Your task to perform on an android device: check android version Image 0: 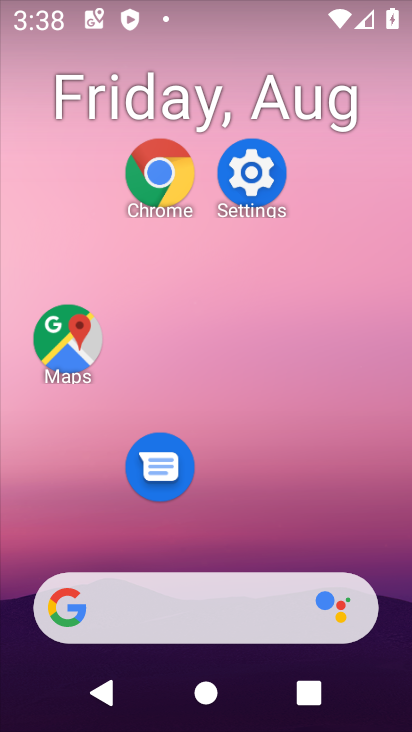
Step 0: drag from (298, 531) to (221, 42)
Your task to perform on an android device: check android version Image 1: 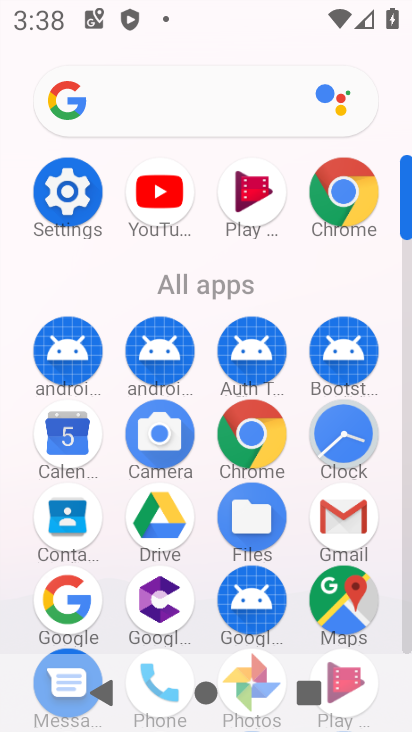
Step 1: click (64, 182)
Your task to perform on an android device: check android version Image 2: 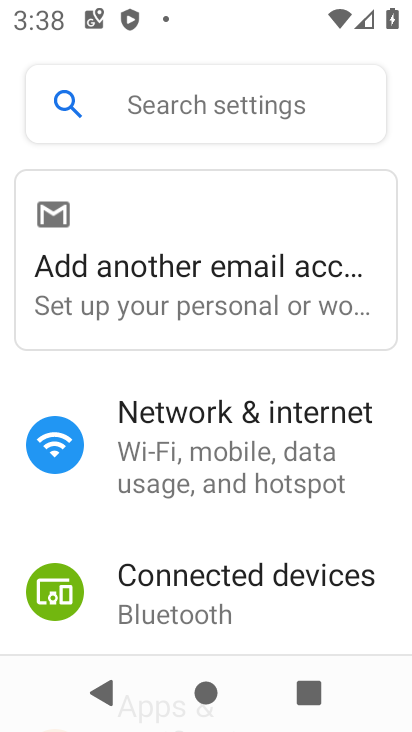
Step 2: drag from (352, 622) to (259, 62)
Your task to perform on an android device: check android version Image 3: 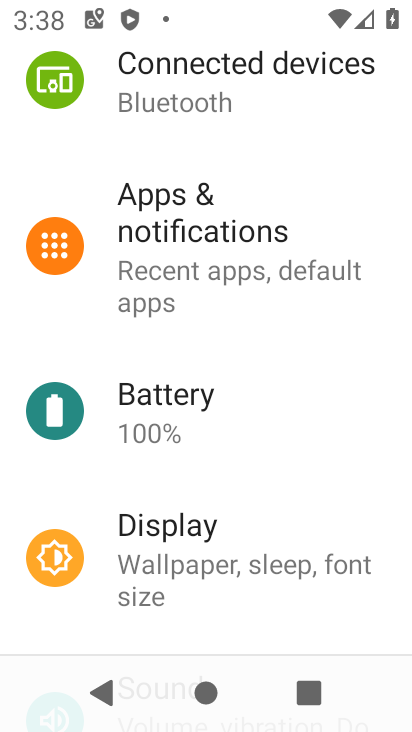
Step 3: drag from (339, 592) to (288, 128)
Your task to perform on an android device: check android version Image 4: 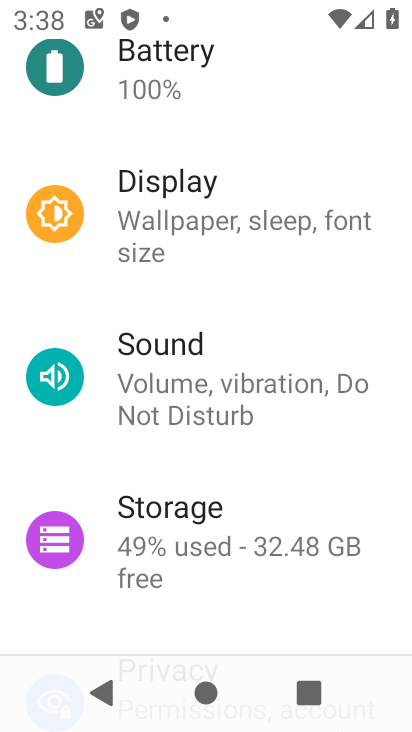
Step 4: drag from (353, 588) to (269, 65)
Your task to perform on an android device: check android version Image 5: 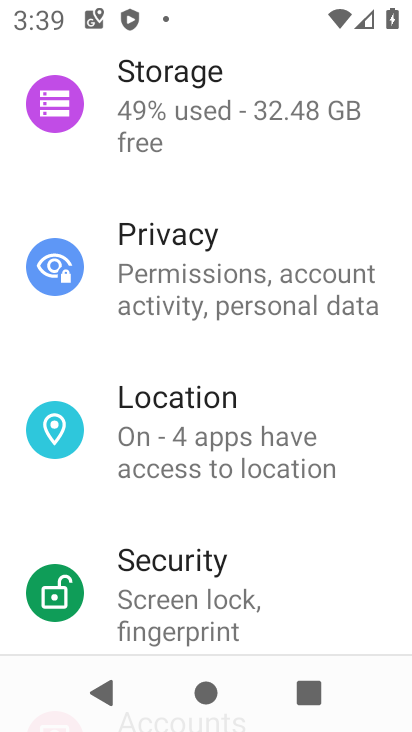
Step 5: drag from (340, 596) to (274, 109)
Your task to perform on an android device: check android version Image 6: 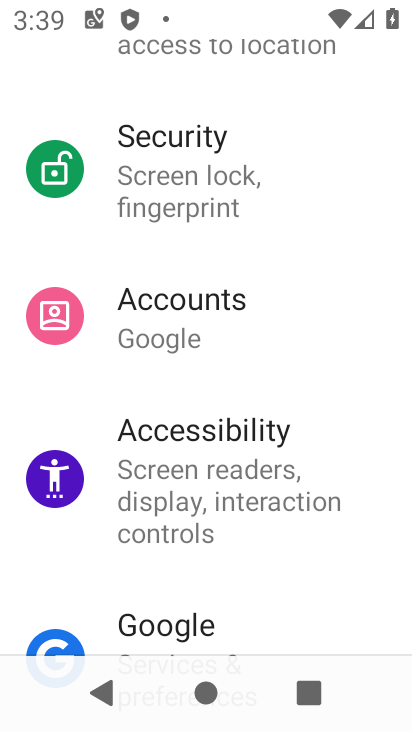
Step 6: drag from (311, 591) to (292, 126)
Your task to perform on an android device: check android version Image 7: 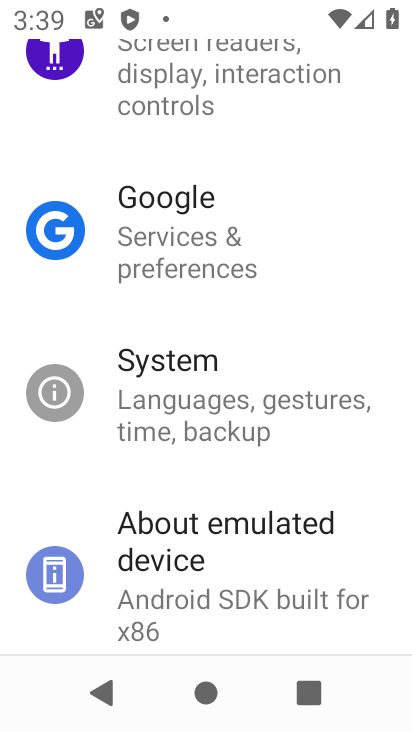
Step 7: drag from (351, 630) to (286, 110)
Your task to perform on an android device: check android version Image 8: 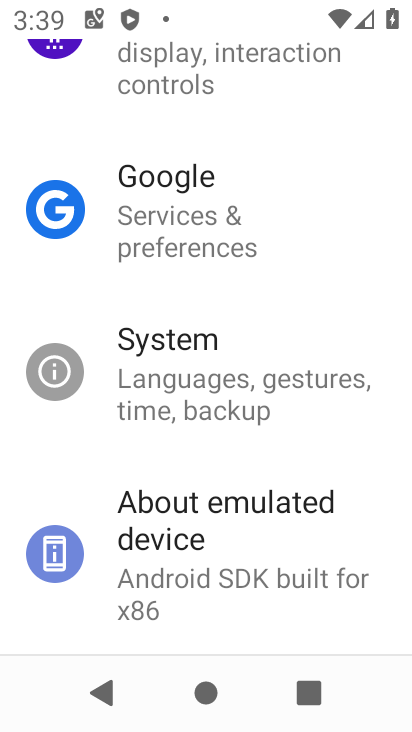
Step 8: click (226, 550)
Your task to perform on an android device: check android version Image 9: 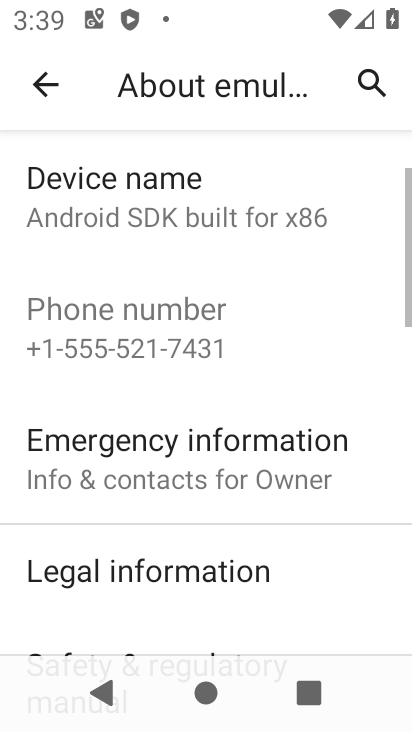
Step 9: drag from (228, 604) to (218, 155)
Your task to perform on an android device: check android version Image 10: 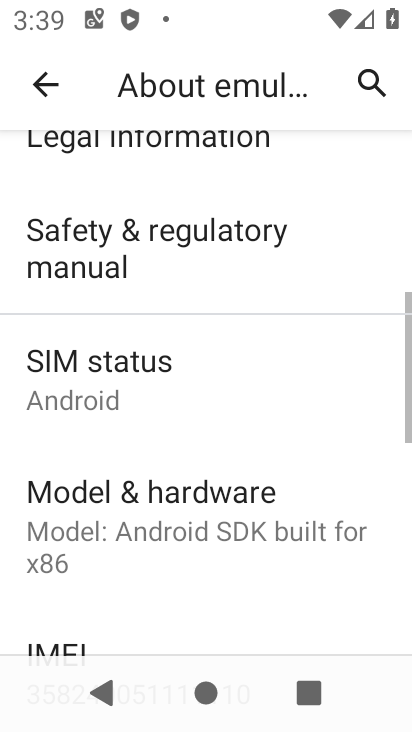
Step 10: drag from (268, 619) to (222, 178)
Your task to perform on an android device: check android version Image 11: 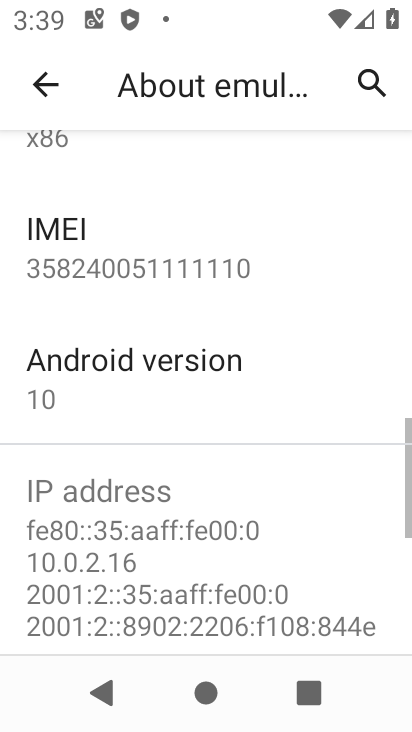
Step 11: click (183, 353)
Your task to perform on an android device: check android version Image 12: 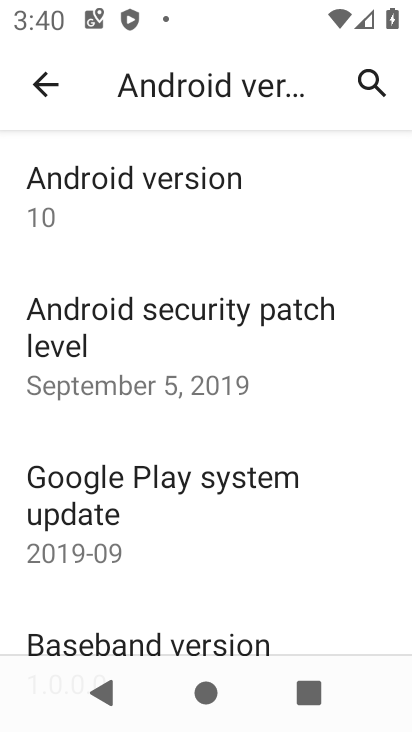
Step 12: task complete